Your task to perform on an android device: turn off translation in the chrome app Image 0: 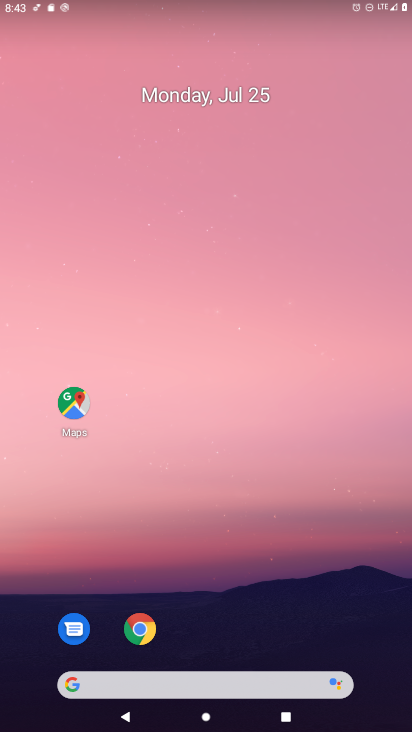
Step 0: click (141, 632)
Your task to perform on an android device: turn off translation in the chrome app Image 1: 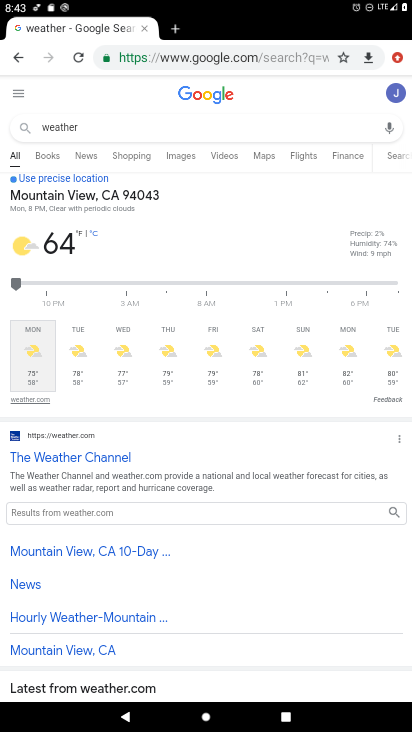
Step 1: click (395, 57)
Your task to perform on an android device: turn off translation in the chrome app Image 2: 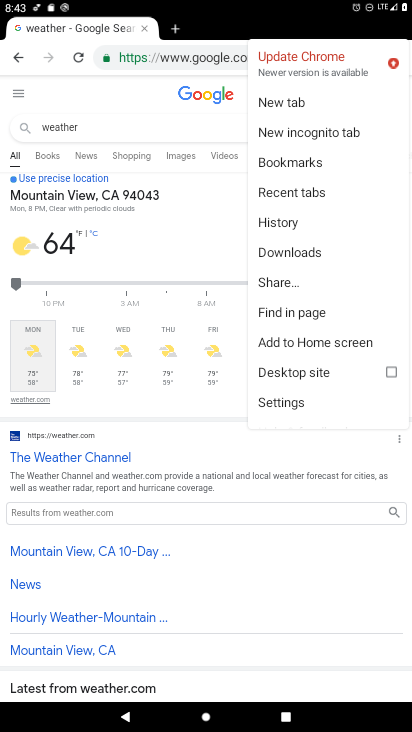
Step 2: click (288, 406)
Your task to perform on an android device: turn off translation in the chrome app Image 3: 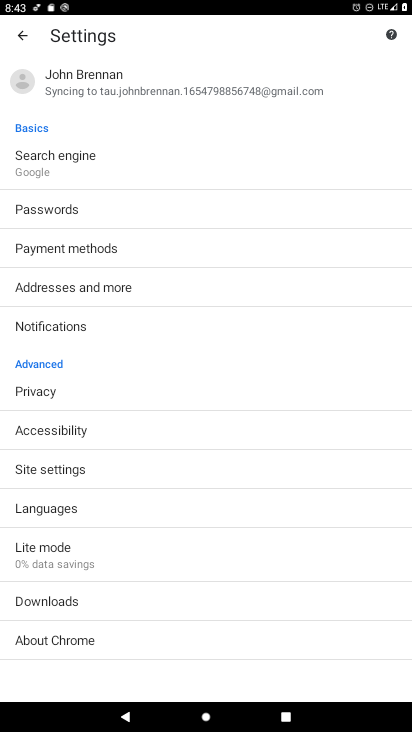
Step 3: click (55, 510)
Your task to perform on an android device: turn off translation in the chrome app Image 4: 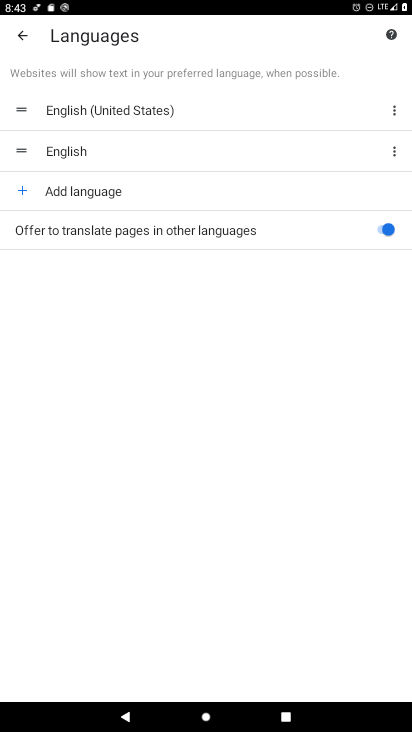
Step 4: click (381, 228)
Your task to perform on an android device: turn off translation in the chrome app Image 5: 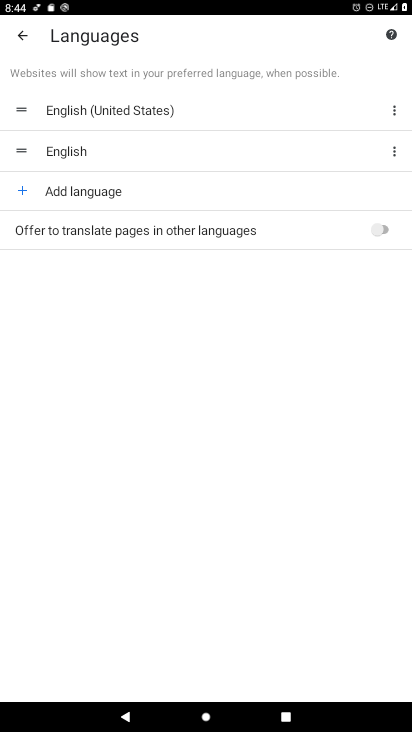
Step 5: task complete